Your task to perform on an android device: Go to location settings Image 0: 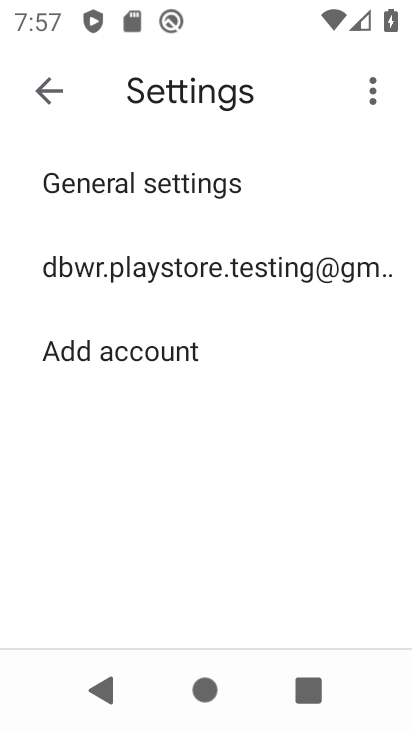
Step 0: press home button
Your task to perform on an android device: Go to location settings Image 1: 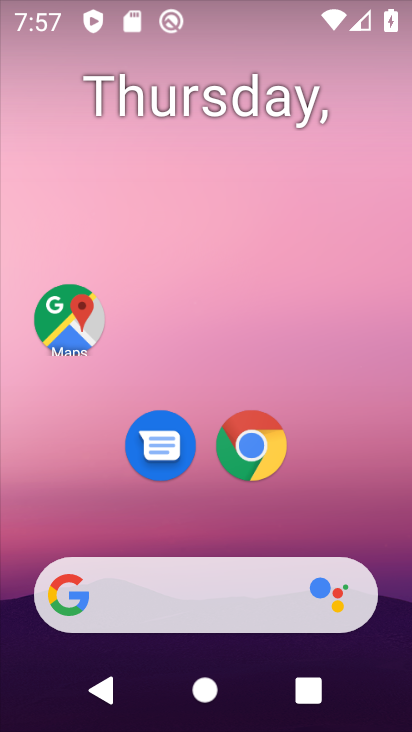
Step 1: drag from (374, 564) to (304, 19)
Your task to perform on an android device: Go to location settings Image 2: 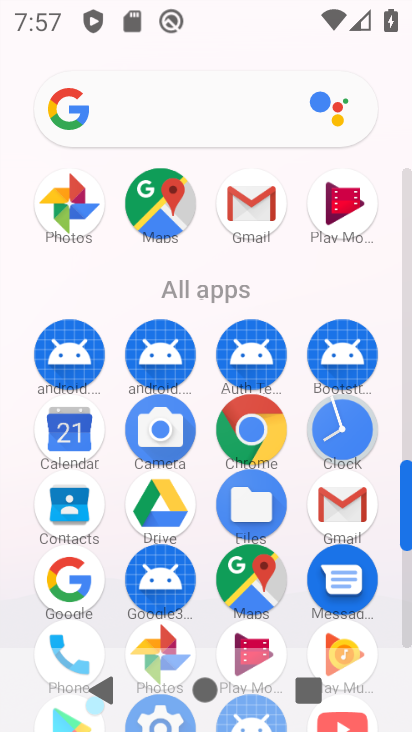
Step 2: drag from (405, 478) to (400, 430)
Your task to perform on an android device: Go to location settings Image 3: 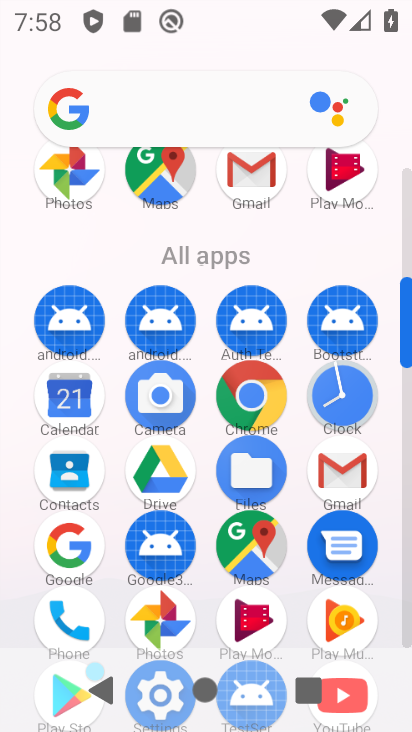
Step 3: click (404, 568)
Your task to perform on an android device: Go to location settings Image 4: 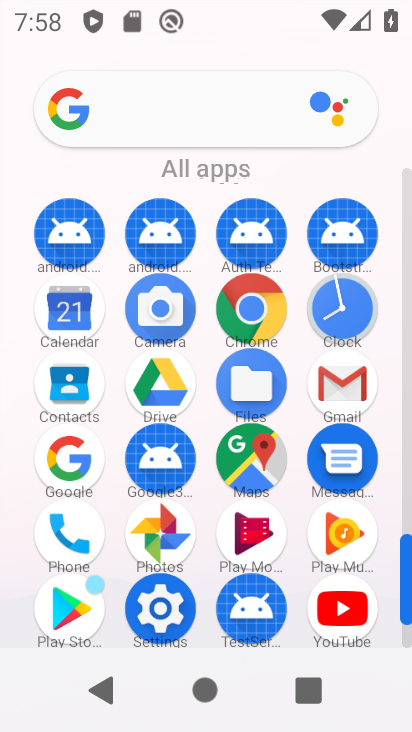
Step 4: click (159, 610)
Your task to perform on an android device: Go to location settings Image 5: 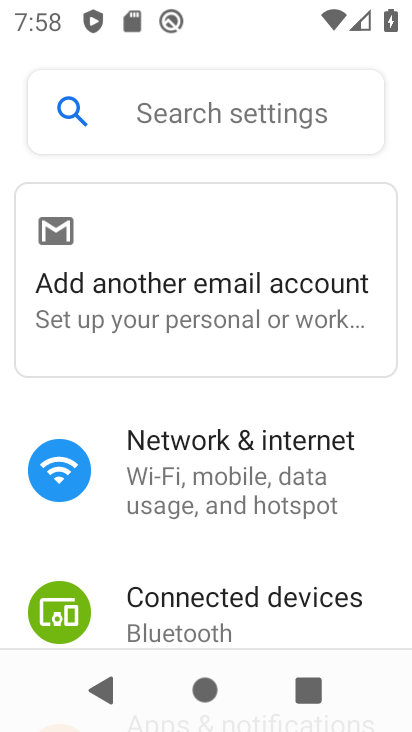
Step 5: drag from (373, 616) to (348, 70)
Your task to perform on an android device: Go to location settings Image 6: 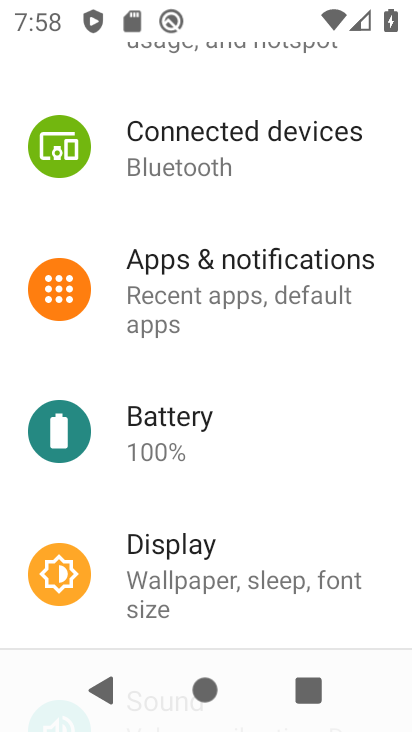
Step 6: drag from (351, 498) to (328, 141)
Your task to perform on an android device: Go to location settings Image 7: 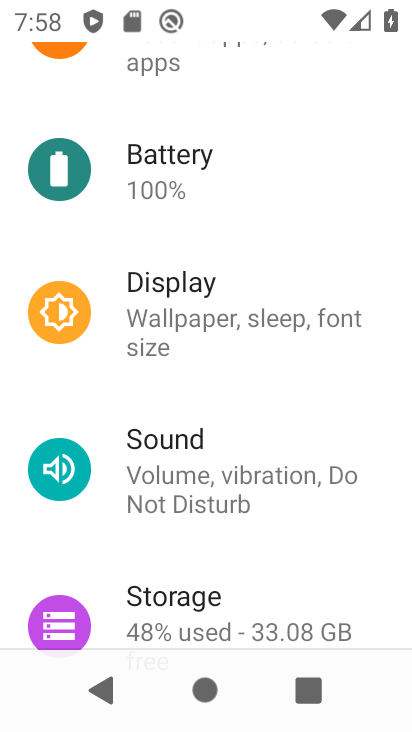
Step 7: drag from (304, 478) to (268, 186)
Your task to perform on an android device: Go to location settings Image 8: 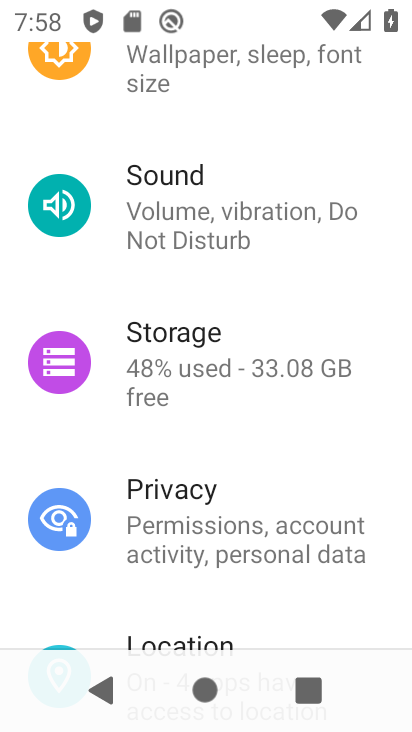
Step 8: drag from (328, 476) to (303, 280)
Your task to perform on an android device: Go to location settings Image 9: 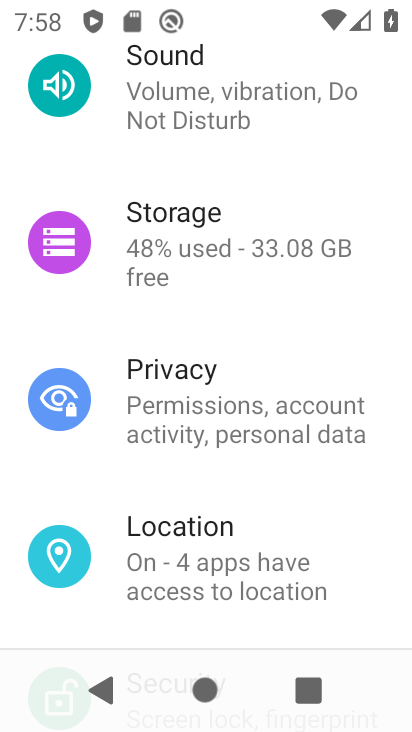
Step 9: click (162, 567)
Your task to perform on an android device: Go to location settings Image 10: 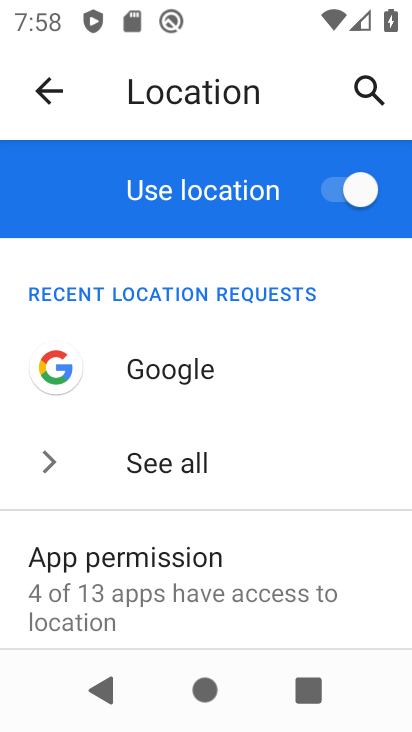
Step 10: task complete